Your task to perform on an android device: Open Google Chrome and open the bookmarks view Image 0: 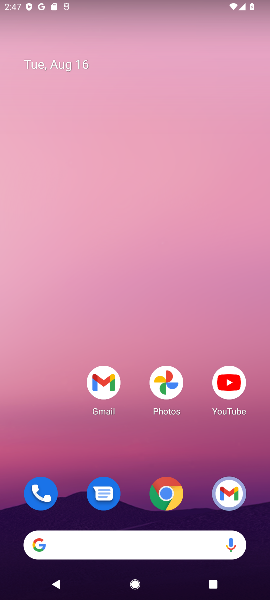
Step 0: press home button
Your task to perform on an android device: Open Google Chrome and open the bookmarks view Image 1: 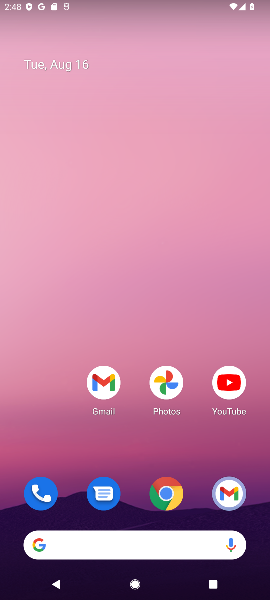
Step 1: drag from (57, 434) to (68, 73)
Your task to perform on an android device: Open Google Chrome and open the bookmarks view Image 2: 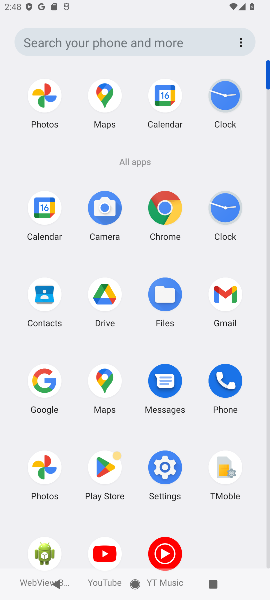
Step 2: click (168, 208)
Your task to perform on an android device: Open Google Chrome and open the bookmarks view Image 3: 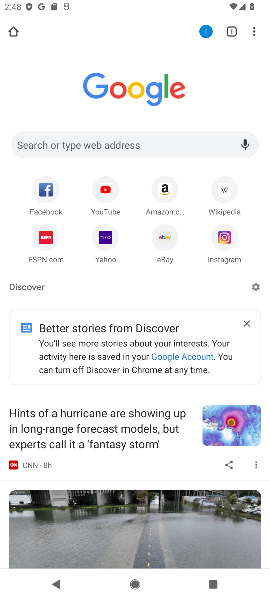
Step 3: click (253, 34)
Your task to perform on an android device: Open Google Chrome and open the bookmarks view Image 4: 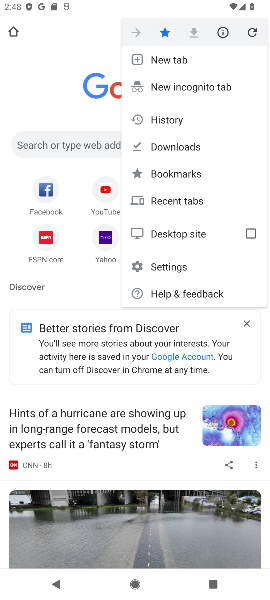
Step 4: click (193, 177)
Your task to perform on an android device: Open Google Chrome and open the bookmarks view Image 5: 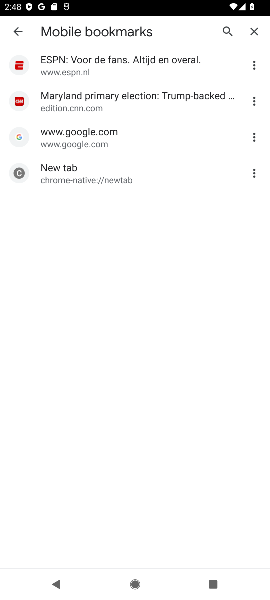
Step 5: task complete